Your task to perform on an android device: What's the weather going to be tomorrow? Image 0: 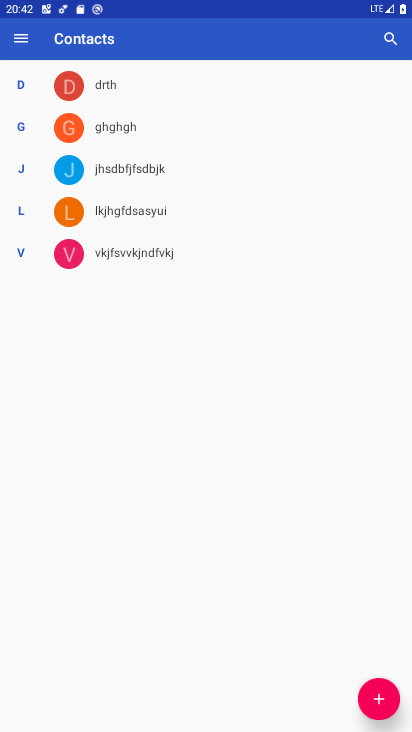
Step 0: press home button
Your task to perform on an android device: What's the weather going to be tomorrow? Image 1: 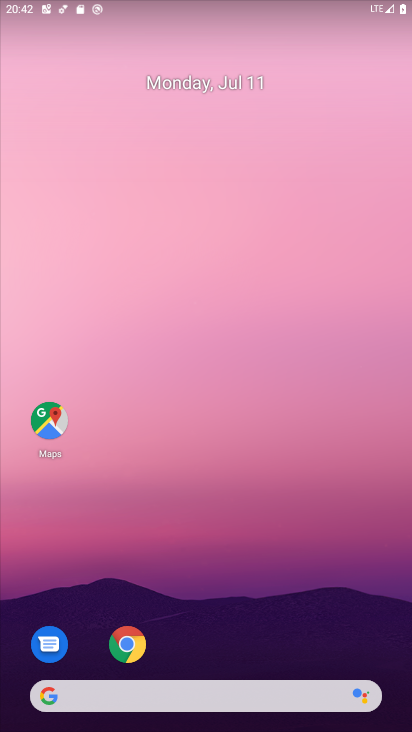
Step 1: drag from (212, 657) to (213, 133)
Your task to perform on an android device: What's the weather going to be tomorrow? Image 2: 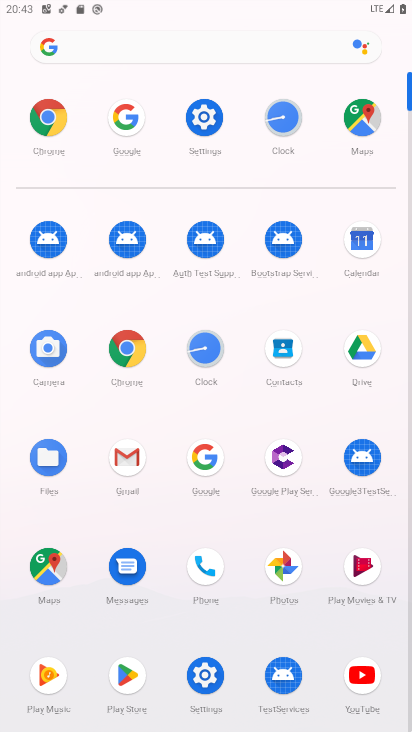
Step 2: click (132, 353)
Your task to perform on an android device: What's the weather going to be tomorrow? Image 3: 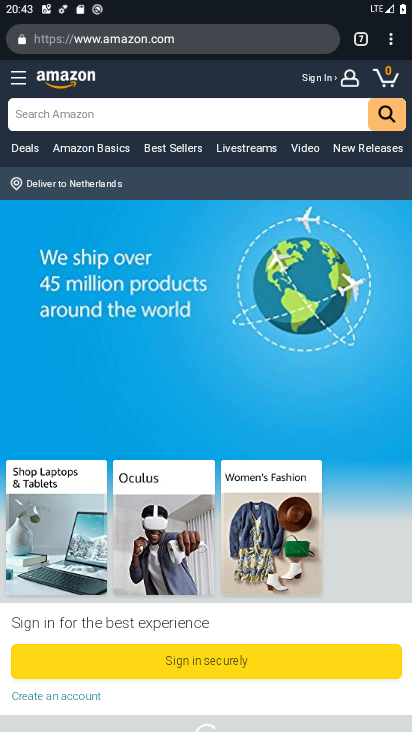
Step 3: click (396, 31)
Your task to perform on an android device: What's the weather going to be tomorrow? Image 4: 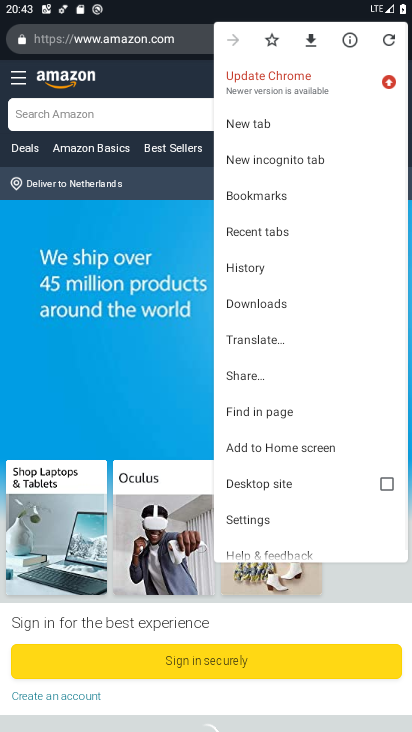
Step 4: click (270, 127)
Your task to perform on an android device: What's the weather going to be tomorrow? Image 5: 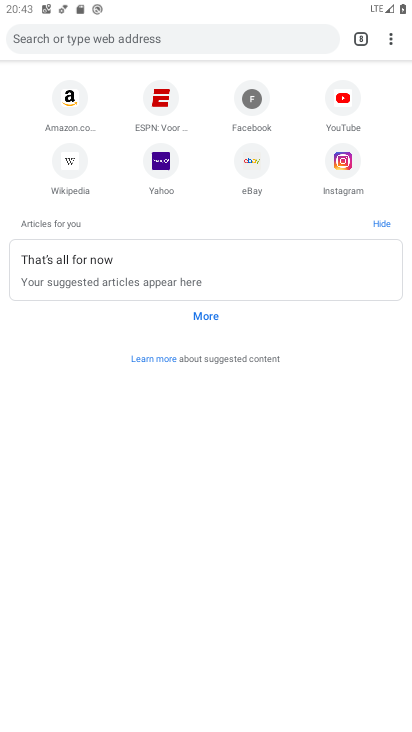
Step 5: click (212, 36)
Your task to perform on an android device: What's the weather going to be tomorrow? Image 6: 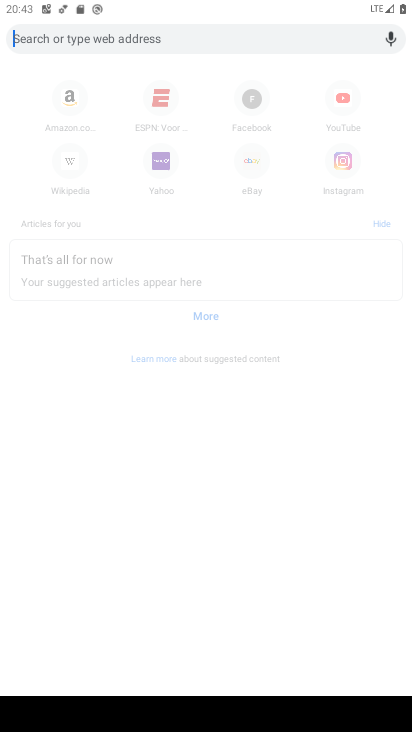
Step 6: type "What's the weather going to be tomorrow "
Your task to perform on an android device: What's the weather going to be tomorrow? Image 7: 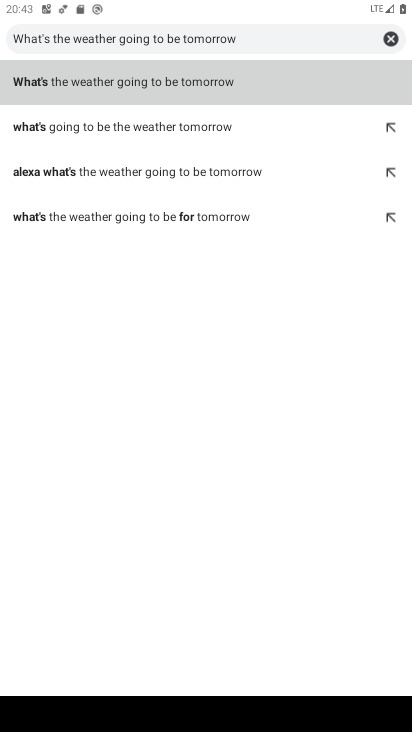
Step 7: click (227, 78)
Your task to perform on an android device: What's the weather going to be tomorrow? Image 8: 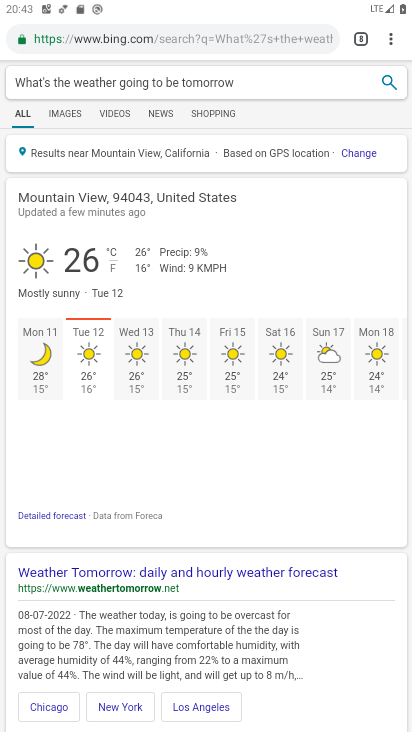
Step 8: task complete